Your task to perform on an android device: create a new album in the google photos Image 0: 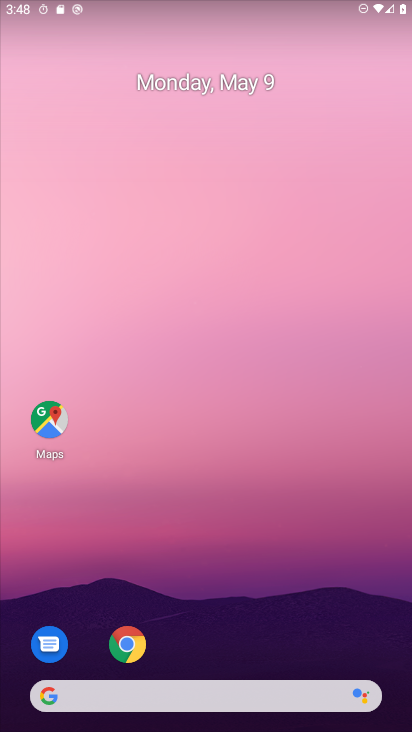
Step 0: drag from (215, 654) to (218, 262)
Your task to perform on an android device: create a new album in the google photos Image 1: 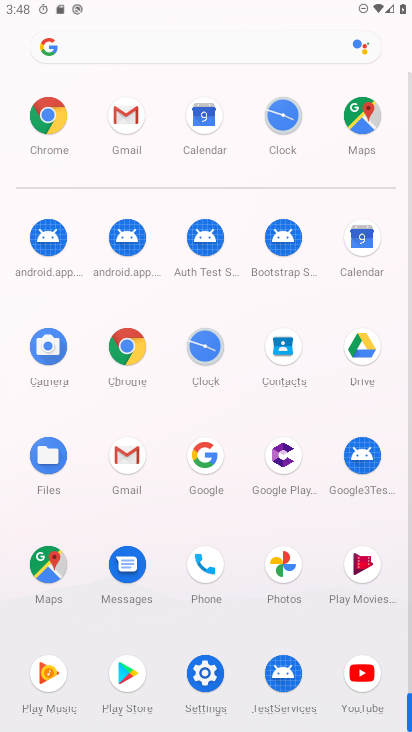
Step 1: click (295, 590)
Your task to perform on an android device: create a new album in the google photos Image 2: 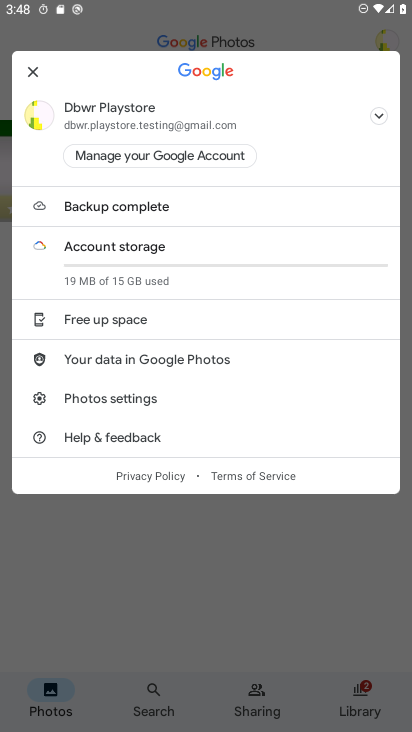
Step 2: click (370, 708)
Your task to perform on an android device: create a new album in the google photos Image 3: 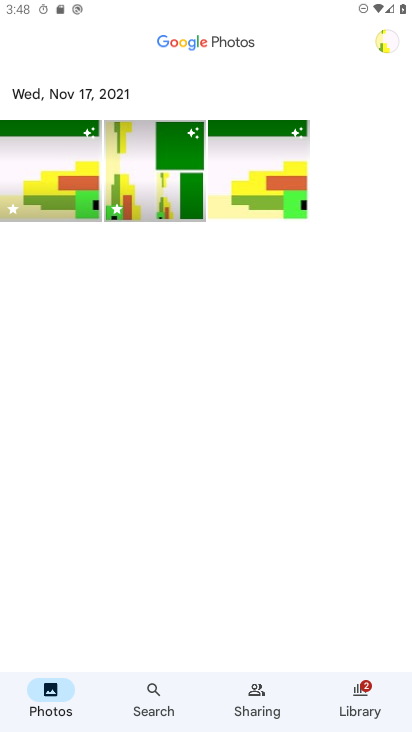
Step 3: click (370, 708)
Your task to perform on an android device: create a new album in the google photos Image 4: 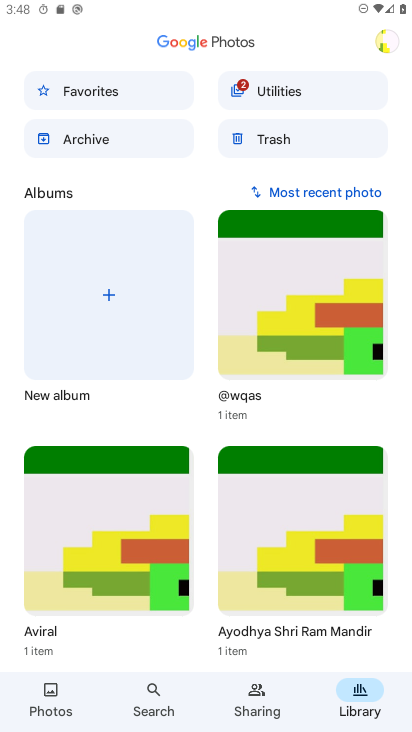
Step 4: click (103, 297)
Your task to perform on an android device: create a new album in the google photos Image 5: 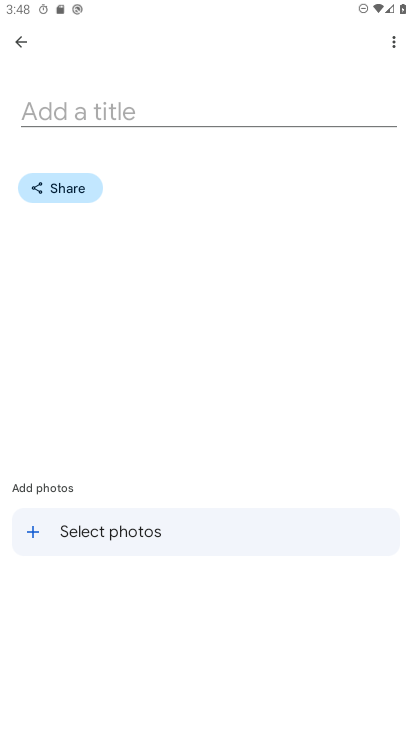
Step 5: click (158, 104)
Your task to perform on an android device: create a new album in the google photos Image 6: 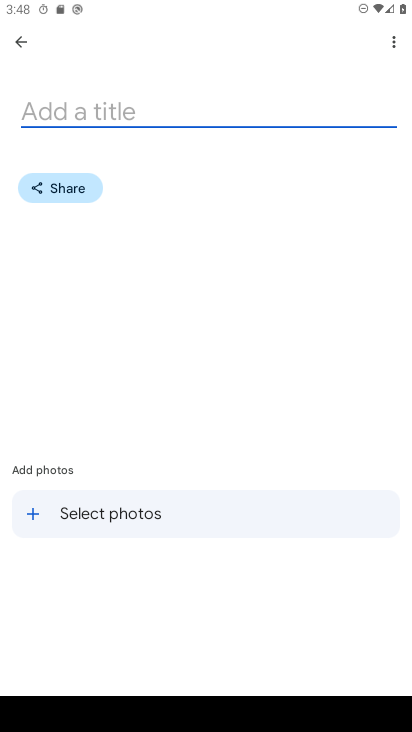
Step 6: type "vijeta"
Your task to perform on an android device: create a new album in the google photos Image 7: 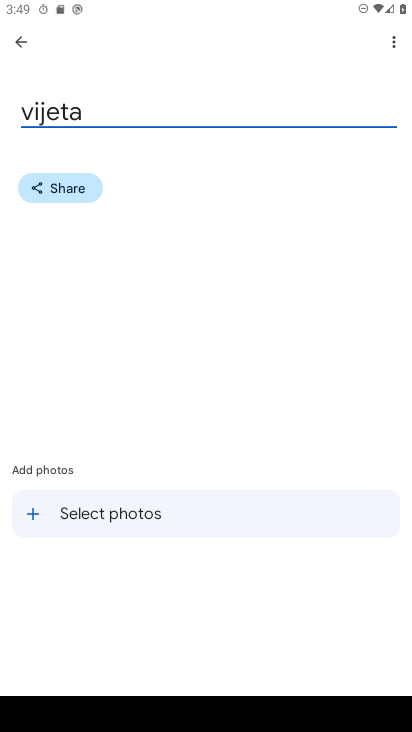
Step 7: click (33, 515)
Your task to perform on an android device: create a new album in the google photos Image 8: 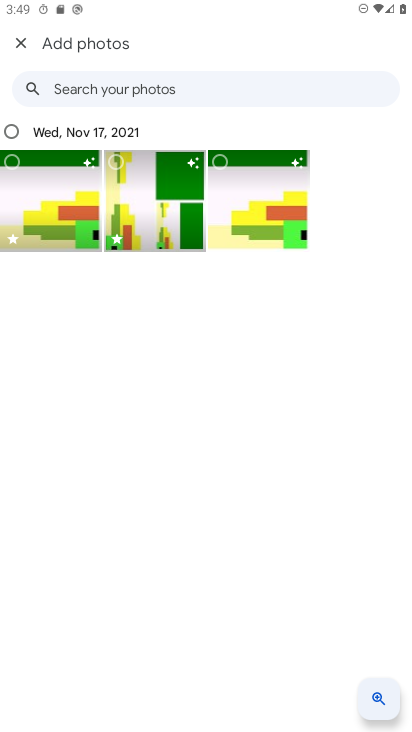
Step 8: click (13, 136)
Your task to perform on an android device: create a new album in the google photos Image 9: 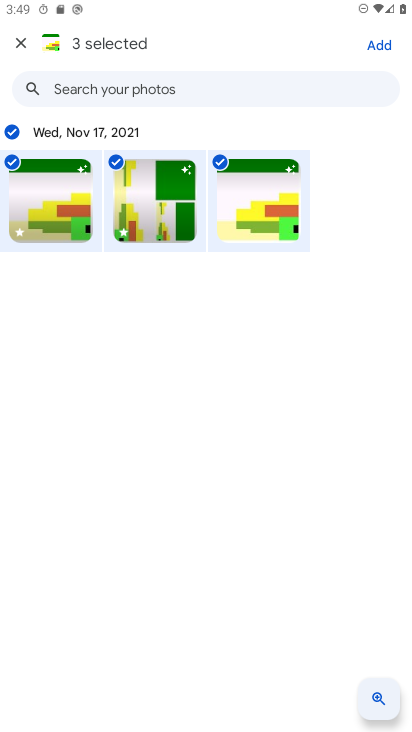
Step 9: click (385, 45)
Your task to perform on an android device: create a new album in the google photos Image 10: 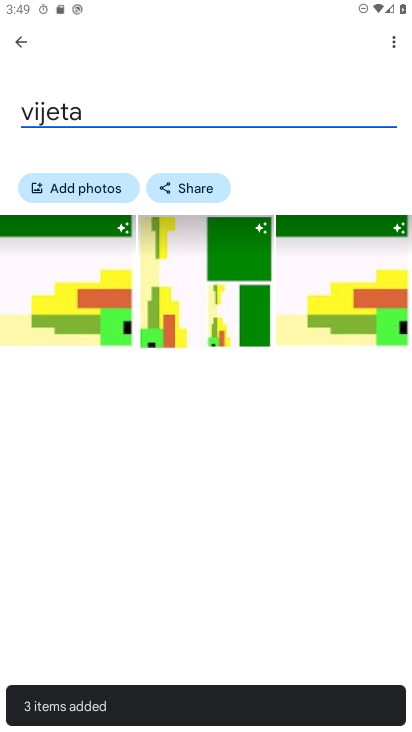
Step 10: task complete